Your task to perform on an android device: delete browsing data in the chrome app Image 0: 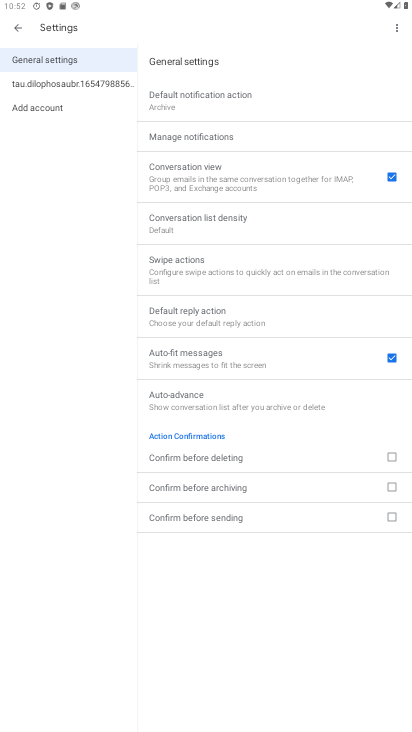
Step 0: press home button
Your task to perform on an android device: delete browsing data in the chrome app Image 1: 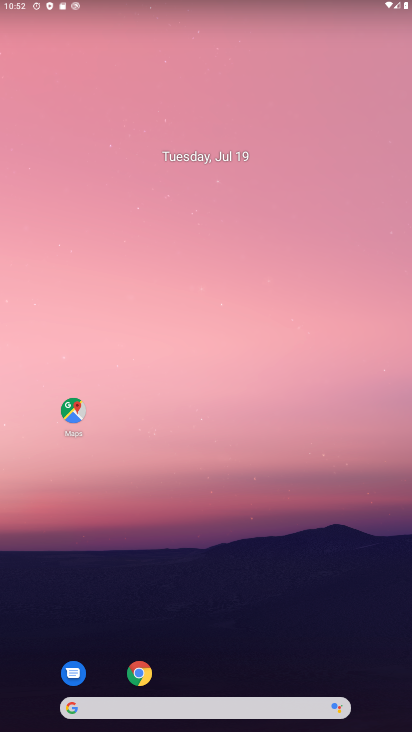
Step 1: click (142, 678)
Your task to perform on an android device: delete browsing data in the chrome app Image 2: 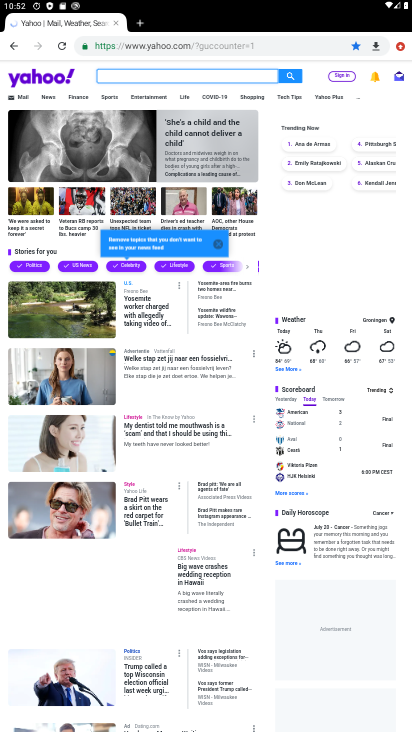
Step 2: drag from (402, 50) to (340, 176)
Your task to perform on an android device: delete browsing data in the chrome app Image 3: 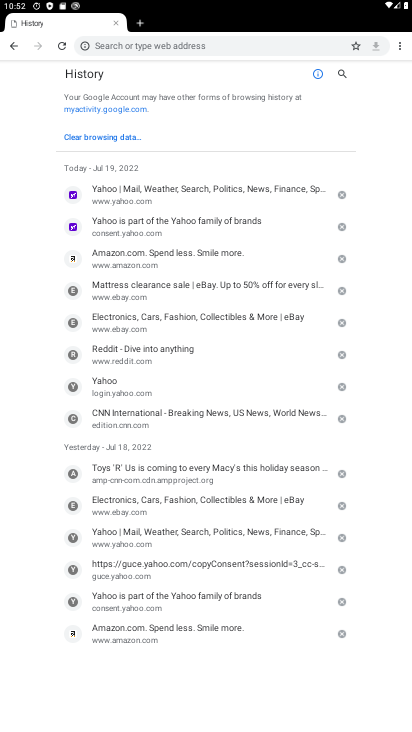
Step 3: click (110, 139)
Your task to perform on an android device: delete browsing data in the chrome app Image 4: 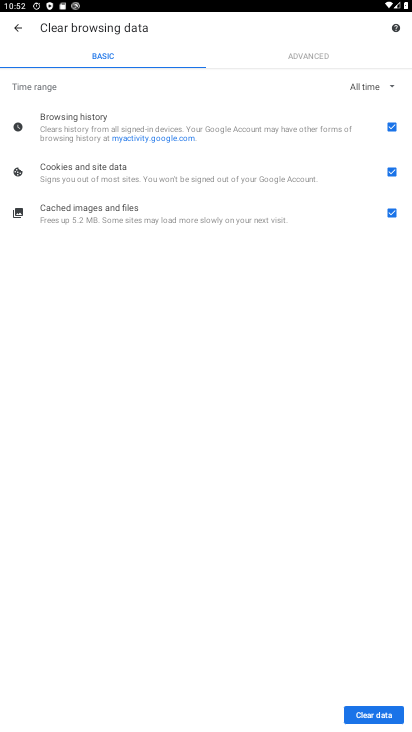
Step 4: click (384, 707)
Your task to perform on an android device: delete browsing data in the chrome app Image 5: 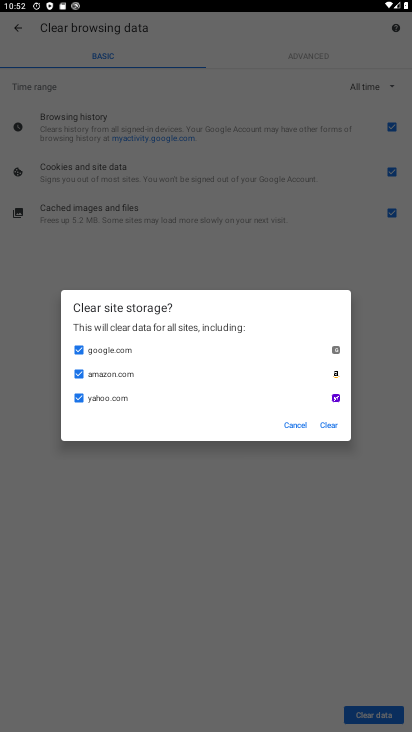
Step 5: click (338, 429)
Your task to perform on an android device: delete browsing data in the chrome app Image 6: 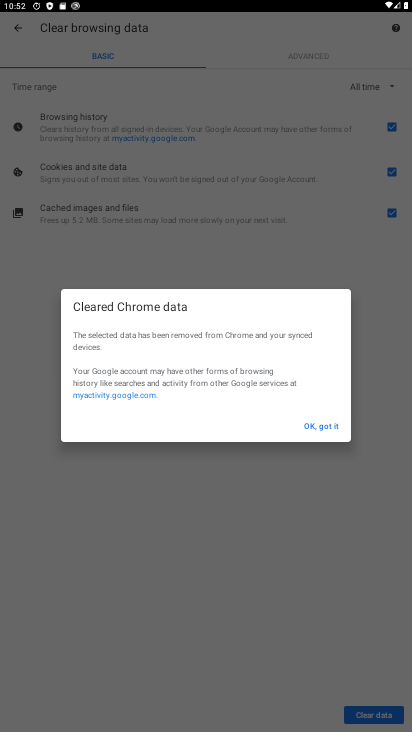
Step 6: click (333, 425)
Your task to perform on an android device: delete browsing data in the chrome app Image 7: 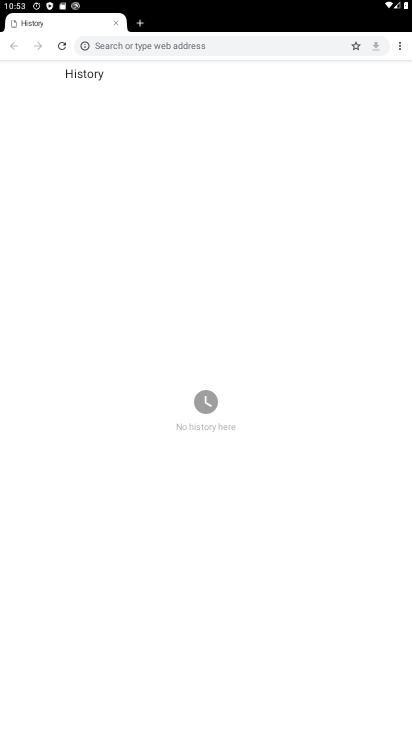
Step 7: task complete